Your task to perform on an android device: open a new tab in the chrome app Image 0: 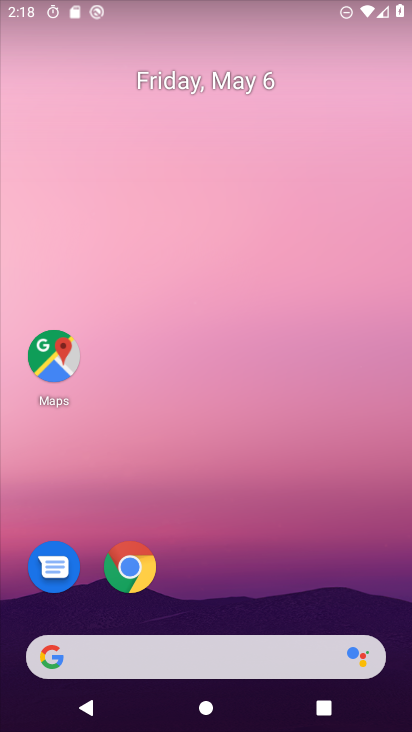
Step 0: drag from (237, 690) to (261, 208)
Your task to perform on an android device: open a new tab in the chrome app Image 1: 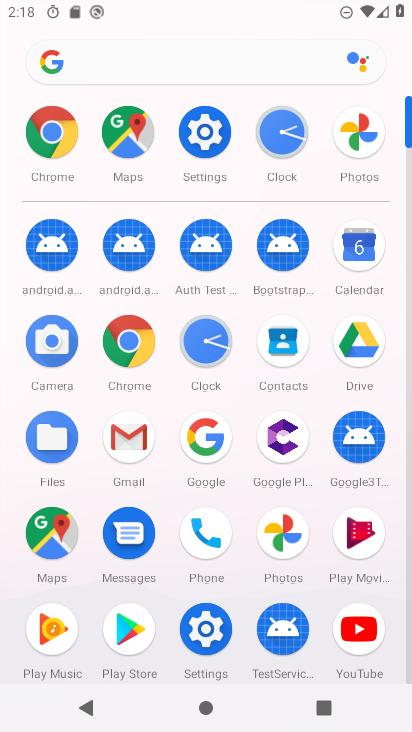
Step 1: click (61, 120)
Your task to perform on an android device: open a new tab in the chrome app Image 2: 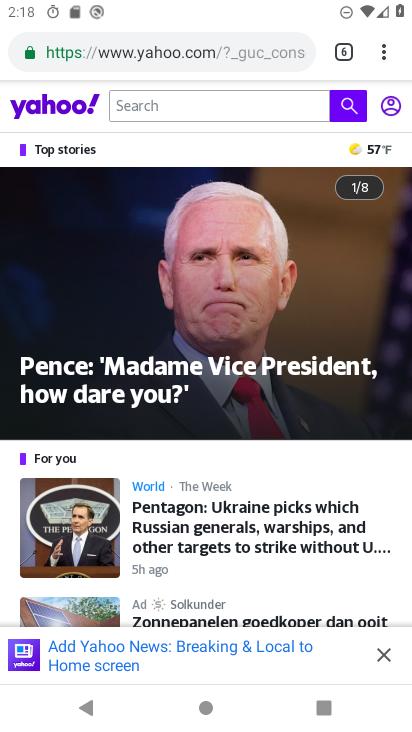
Step 2: click (375, 57)
Your task to perform on an android device: open a new tab in the chrome app Image 3: 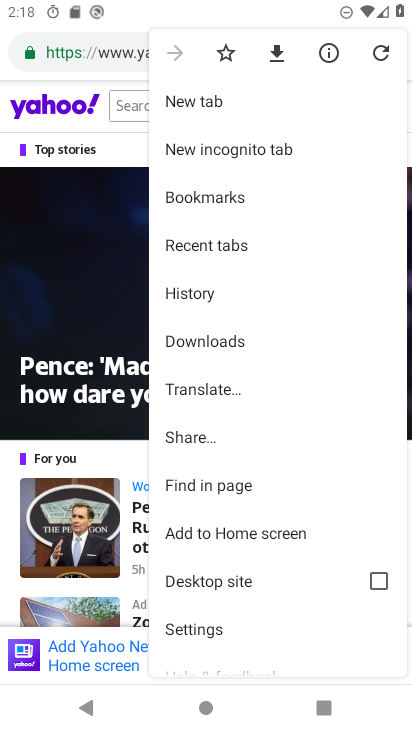
Step 3: click (224, 104)
Your task to perform on an android device: open a new tab in the chrome app Image 4: 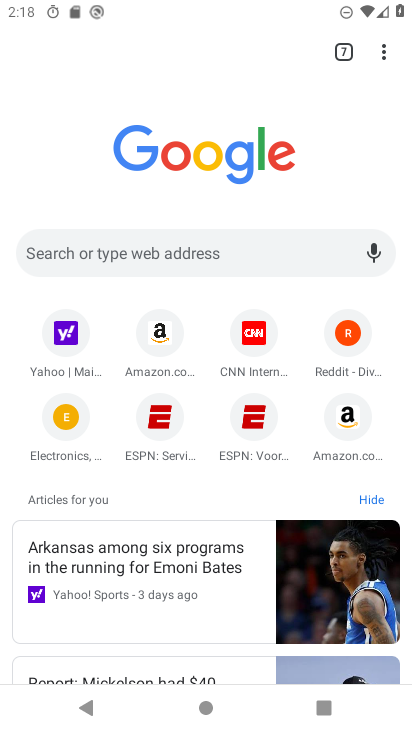
Step 4: task complete